Your task to perform on an android device: View the shopping cart on amazon.com. Add razer blade to the cart on amazon.com Image 0: 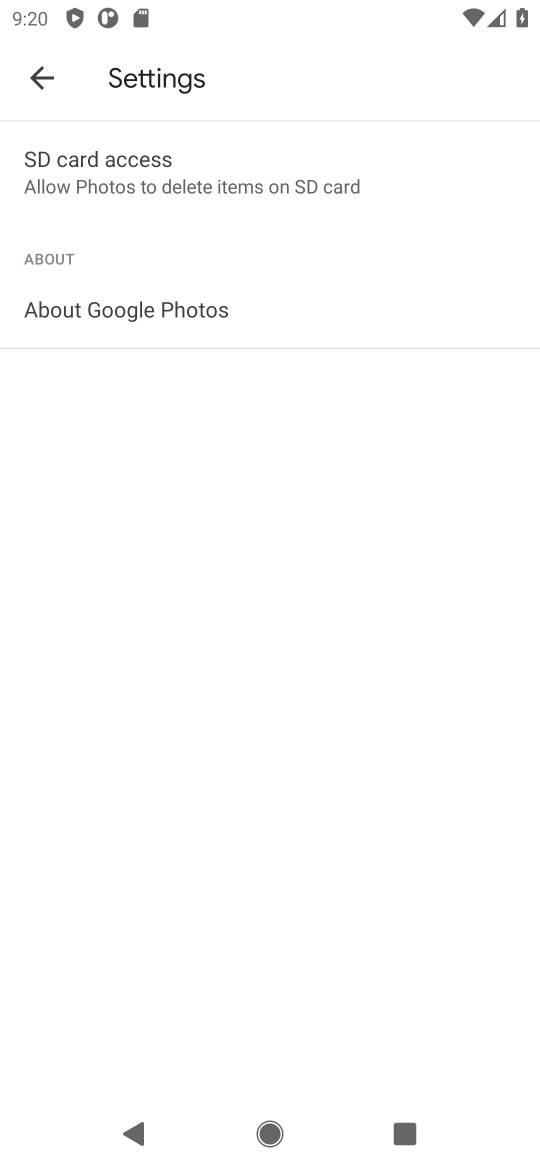
Step 0: press home button
Your task to perform on an android device: View the shopping cart on amazon.com. Add razer blade to the cart on amazon.com Image 1: 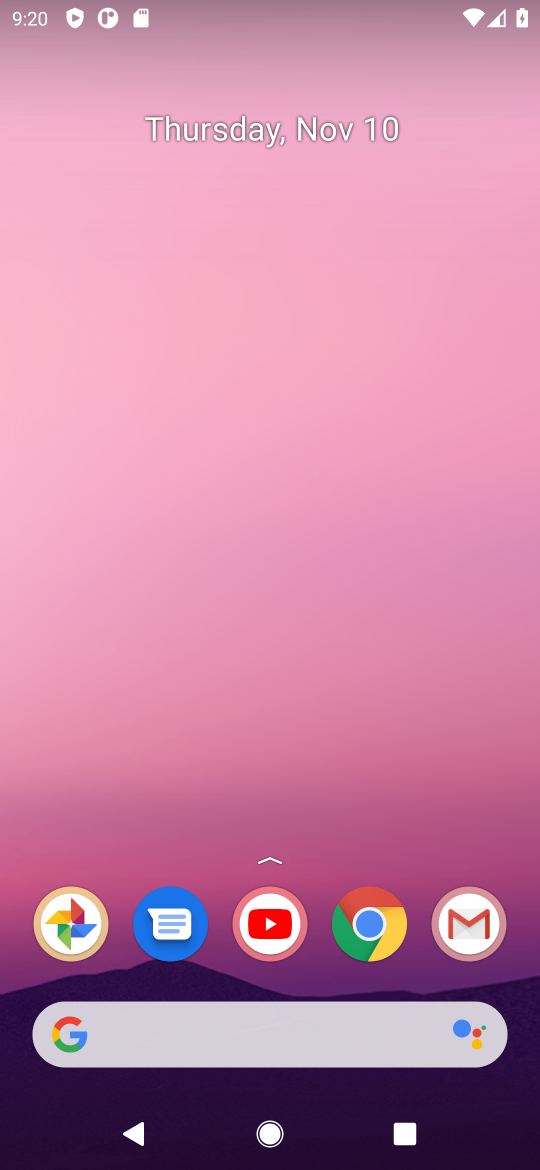
Step 1: click (365, 934)
Your task to perform on an android device: View the shopping cart on amazon.com. Add razer blade to the cart on amazon.com Image 2: 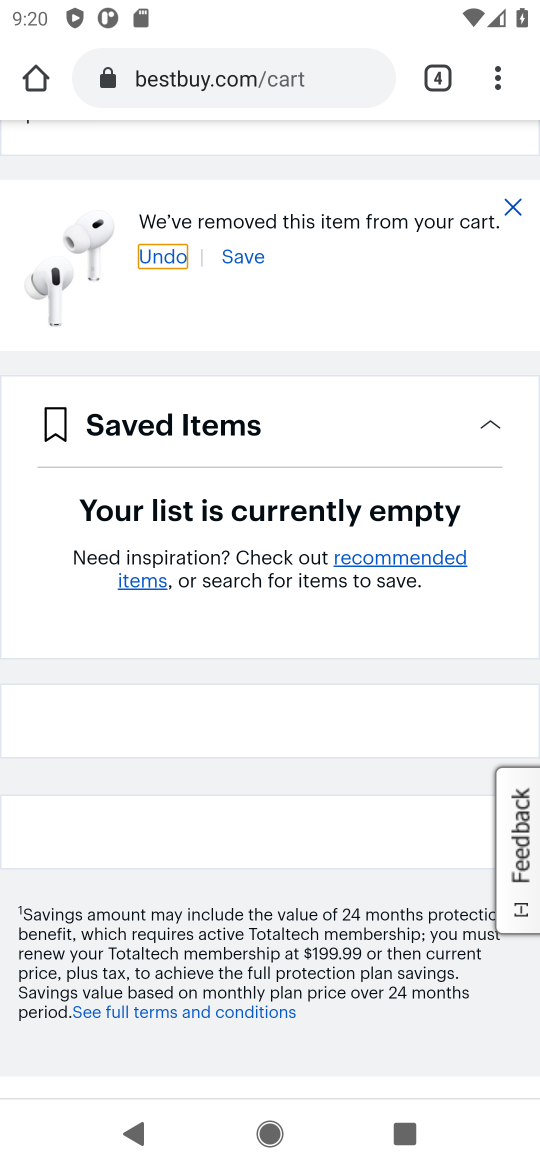
Step 2: click (239, 86)
Your task to perform on an android device: View the shopping cart on amazon.com. Add razer blade to the cart on amazon.com Image 3: 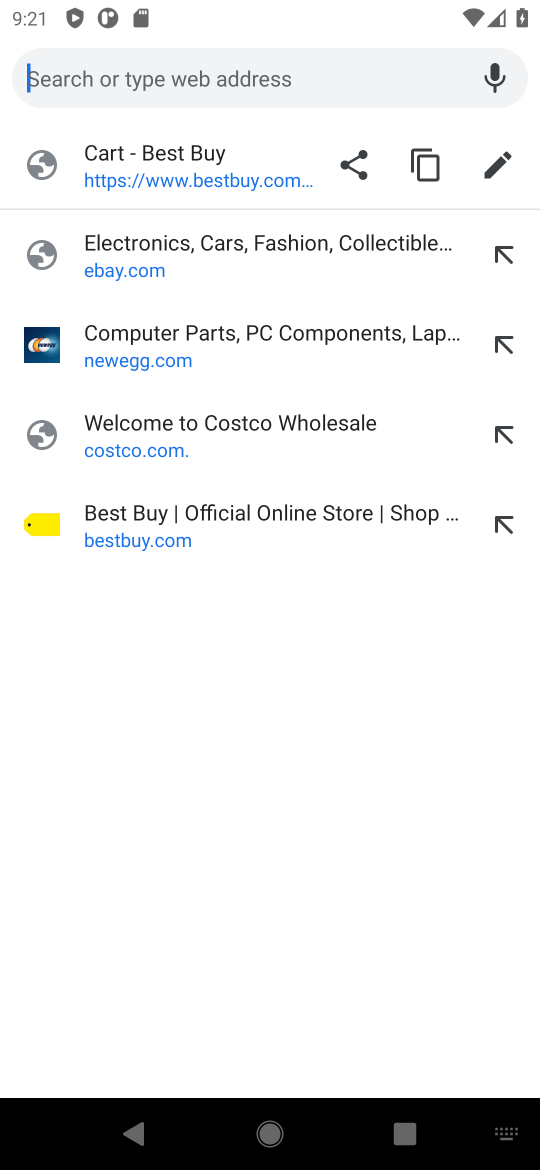
Step 3: type "amazon.com"
Your task to perform on an android device: View the shopping cart on amazon.com. Add razer blade to the cart on amazon.com Image 4: 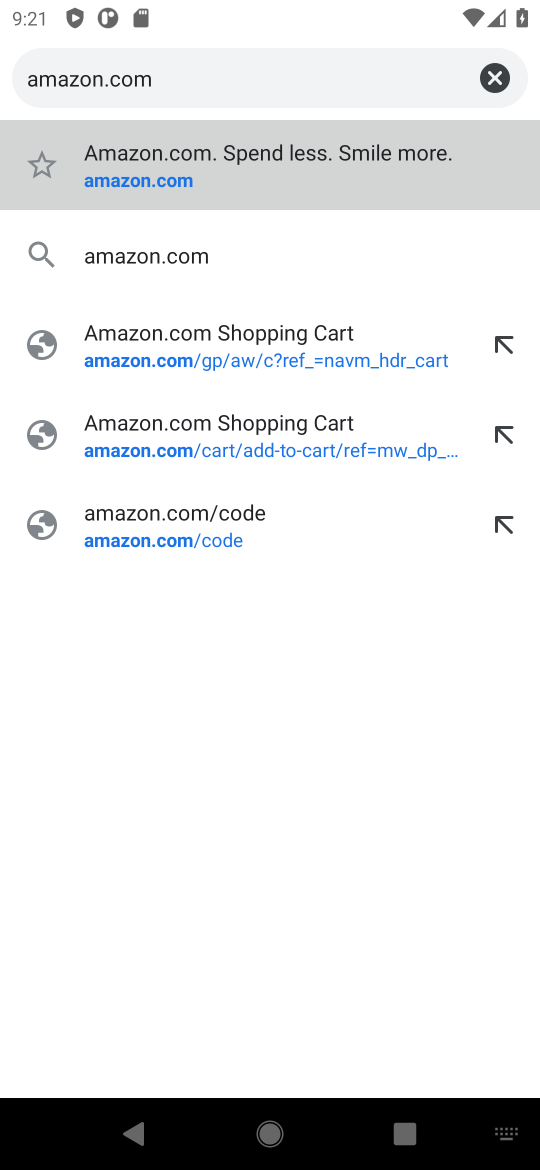
Step 4: click (154, 185)
Your task to perform on an android device: View the shopping cart on amazon.com. Add razer blade to the cart on amazon.com Image 5: 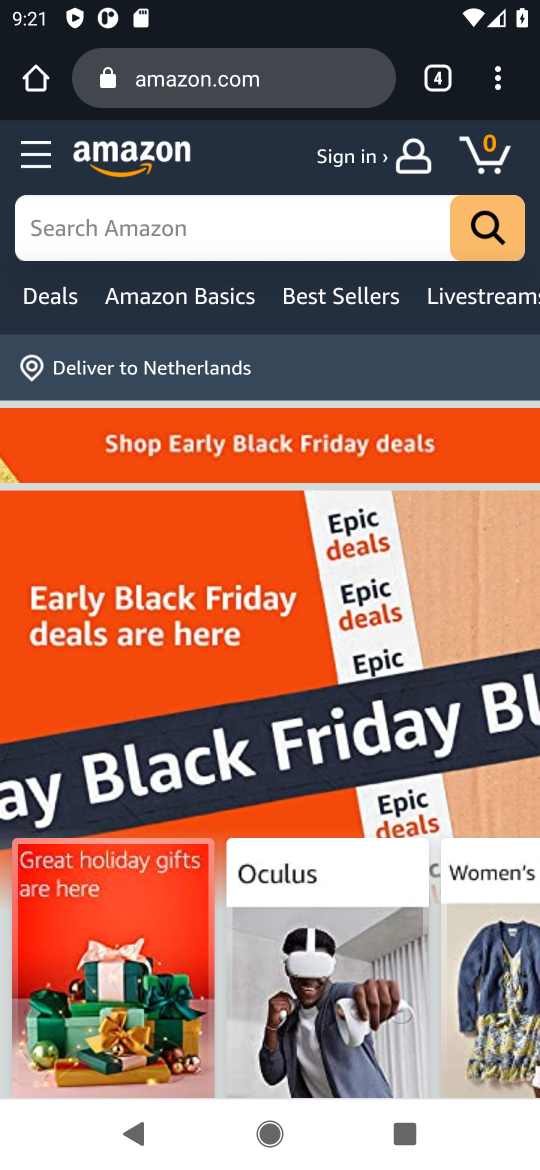
Step 5: click (488, 164)
Your task to perform on an android device: View the shopping cart on amazon.com. Add razer blade to the cart on amazon.com Image 6: 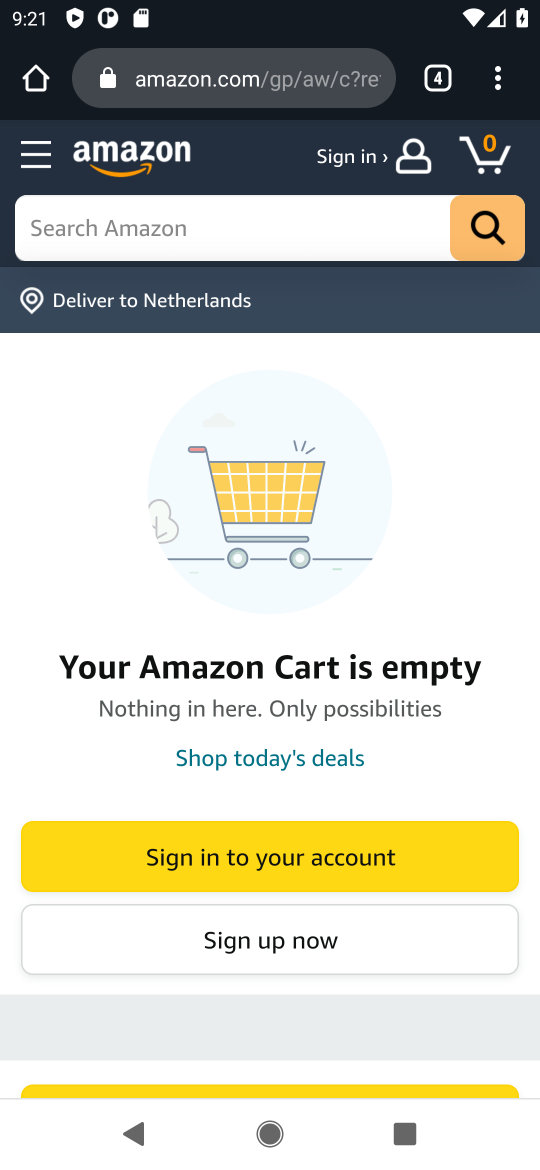
Step 6: click (89, 225)
Your task to perform on an android device: View the shopping cart on amazon.com. Add razer blade to the cart on amazon.com Image 7: 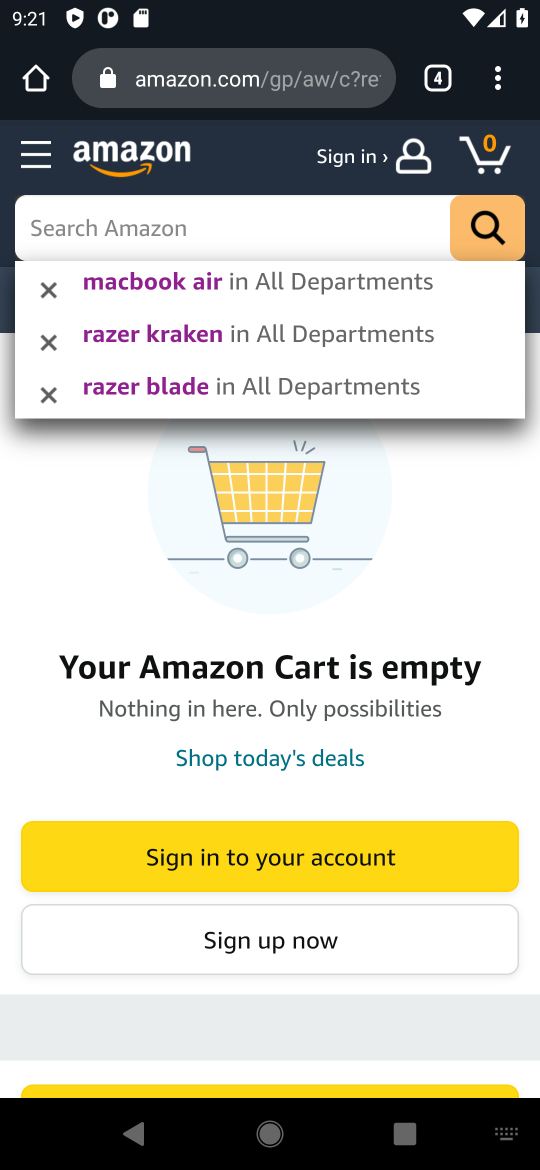
Step 7: type " razer blade"
Your task to perform on an android device: View the shopping cart on amazon.com. Add razer blade to the cart on amazon.com Image 8: 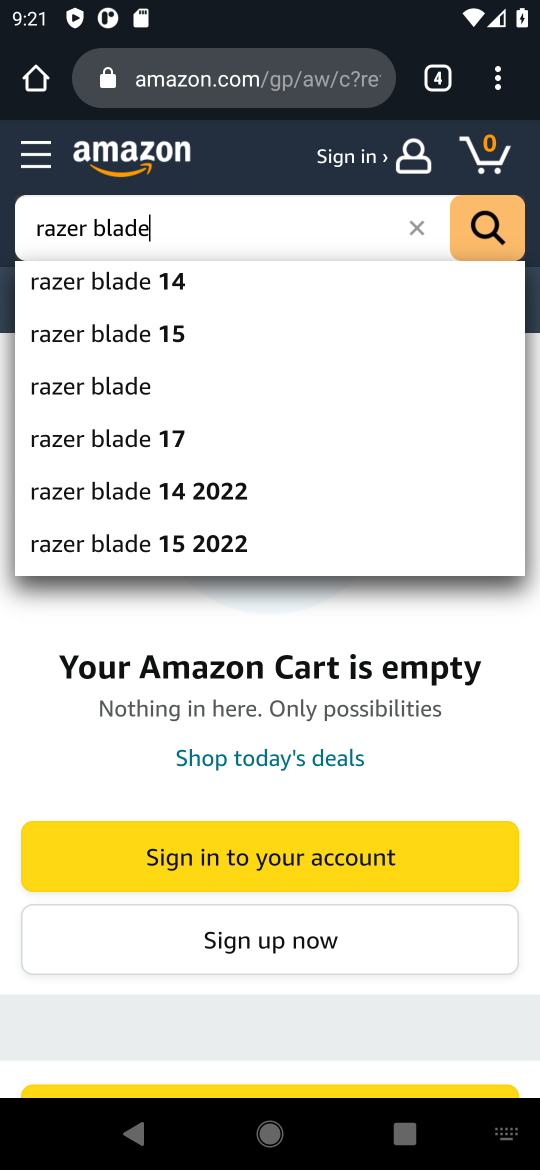
Step 8: click (108, 393)
Your task to perform on an android device: View the shopping cart on amazon.com. Add razer blade to the cart on amazon.com Image 9: 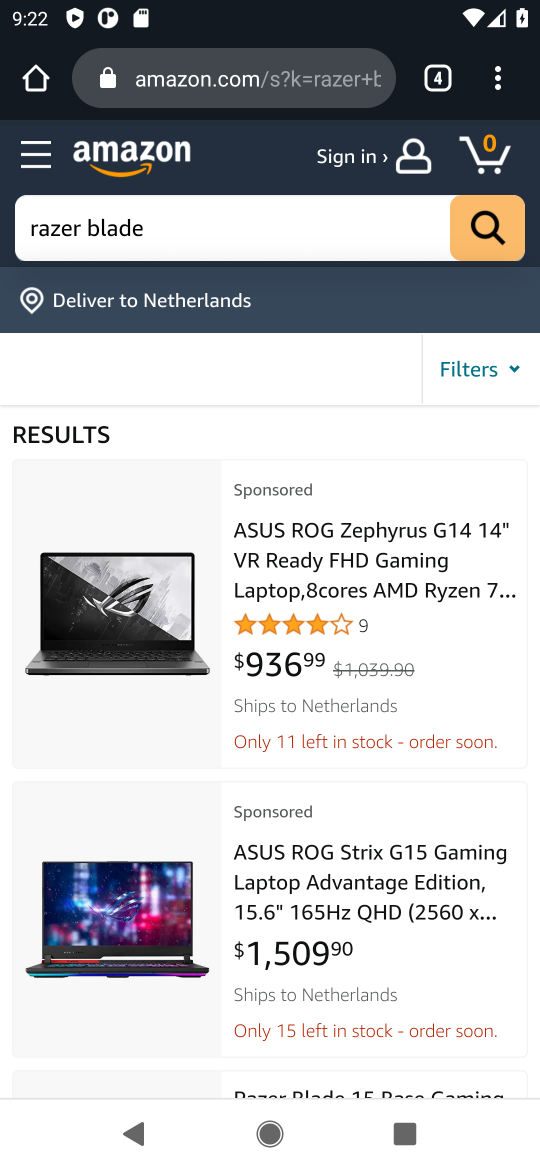
Step 9: drag from (136, 917) to (141, 546)
Your task to perform on an android device: View the shopping cart on amazon.com. Add razer blade to the cart on amazon.com Image 10: 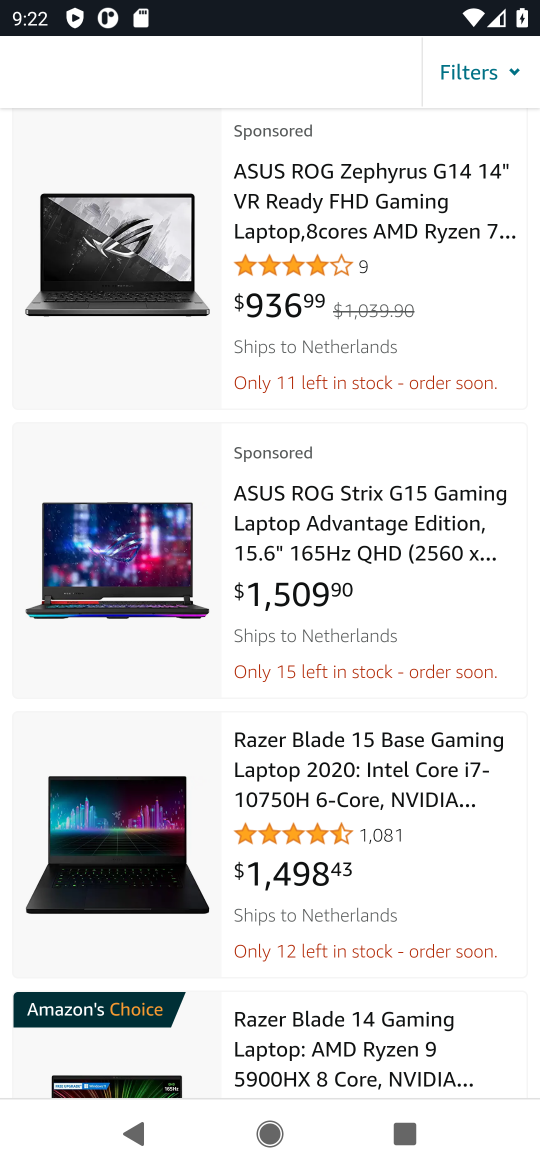
Step 10: click (111, 838)
Your task to perform on an android device: View the shopping cart on amazon.com. Add razer blade to the cart on amazon.com Image 11: 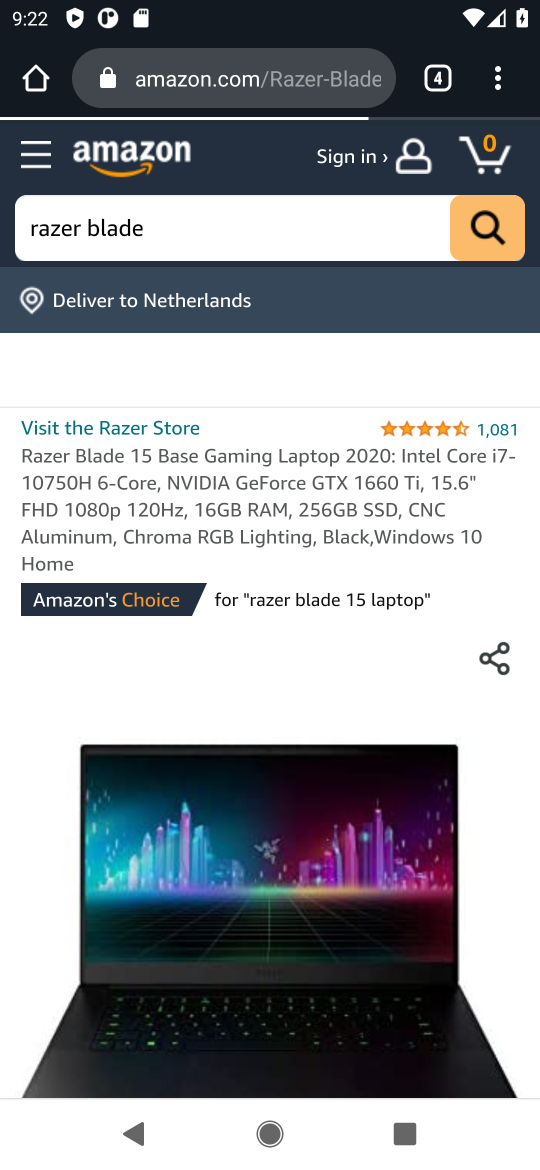
Step 11: drag from (197, 884) to (155, 347)
Your task to perform on an android device: View the shopping cart on amazon.com. Add razer blade to the cart on amazon.com Image 12: 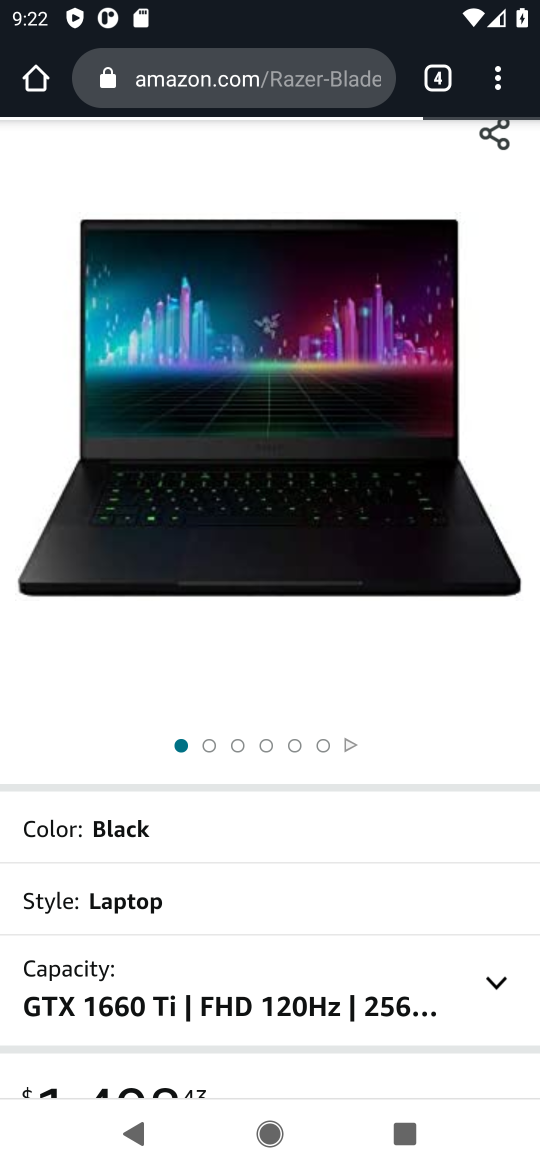
Step 12: drag from (256, 831) to (272, 396)
Your task to perform on an android device: View the shopping cart on amazon.com. Add razer blade to the cart on amazon.com Image 13: 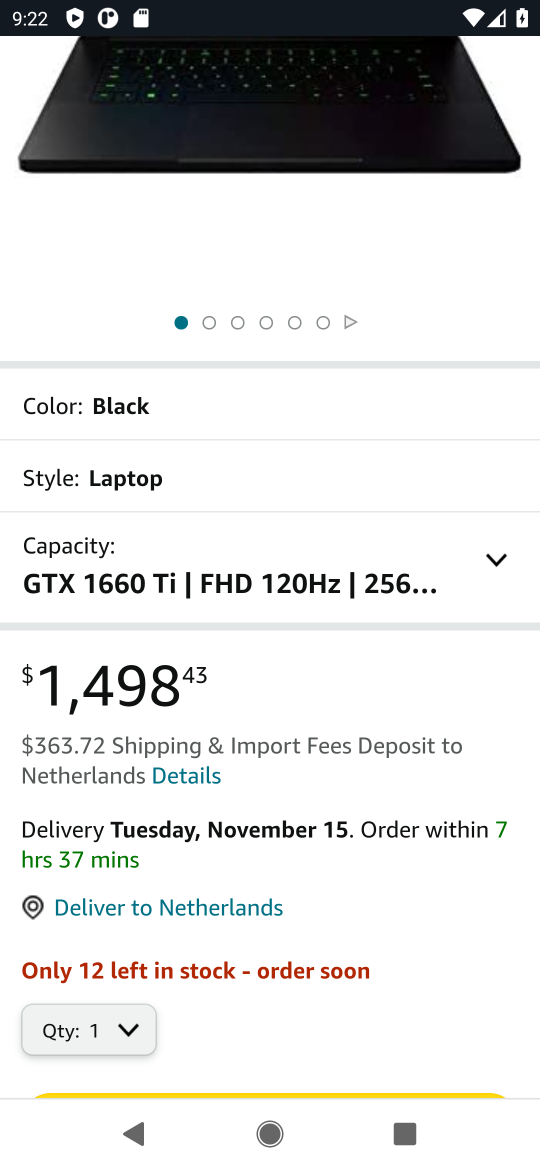
Step 13: drag from (274, 870) to (283, 497)
Your task to perform on an android device: View the shopping cart on amazon.com. Add razer blade to the cart on amazon.com Image 14: 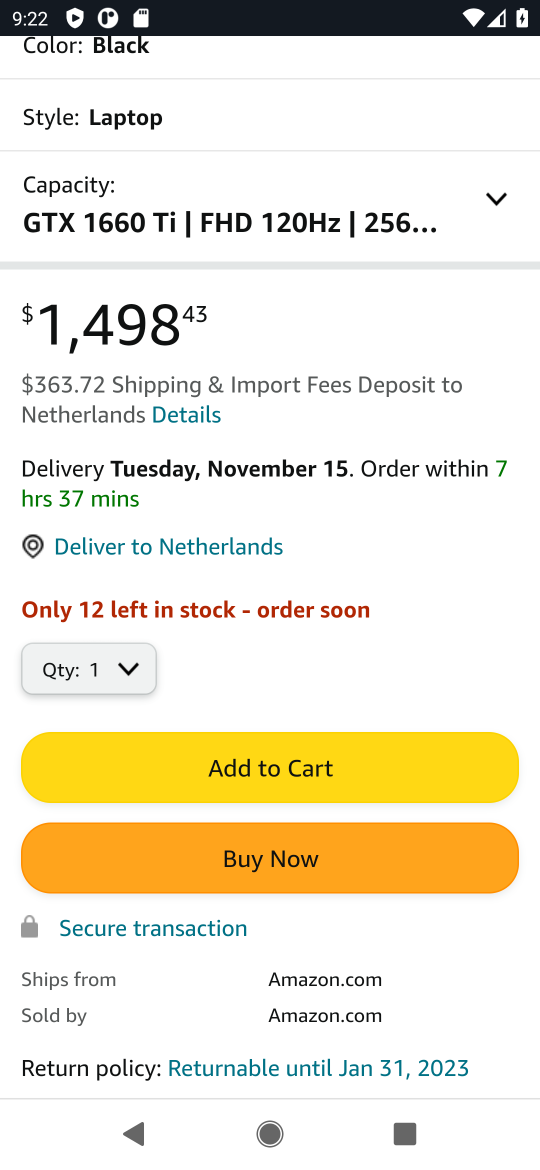
Step 14: click (282, 747)
Your task to perform on an android device: View the shopping cart on amazon.com. Add razer blade to the cart on amazon.com Image 15: 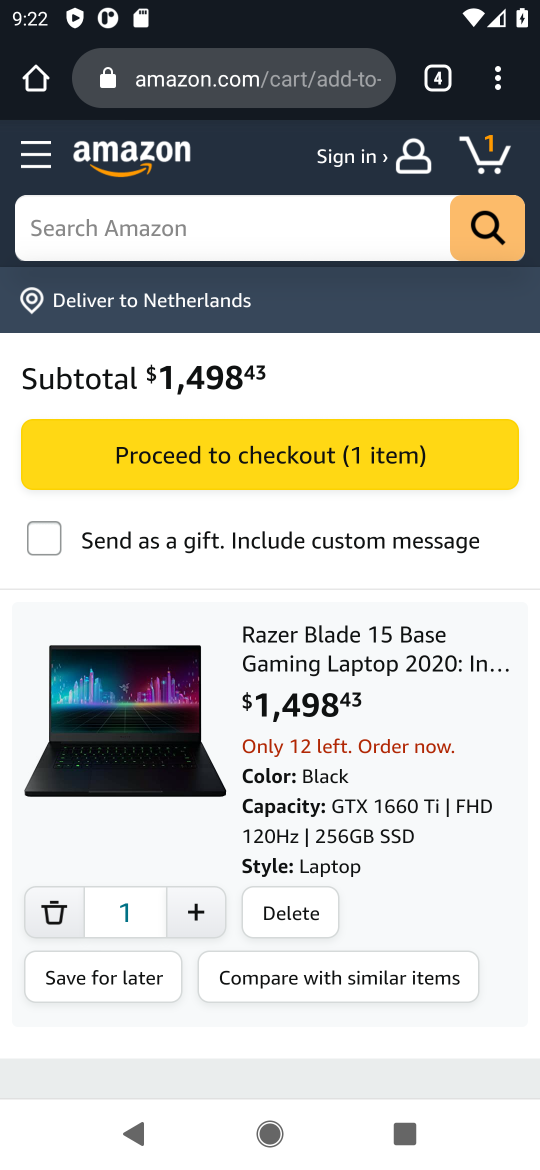
Step 15: task complete